Your task to perform on an android device: Go to Google Image 0: 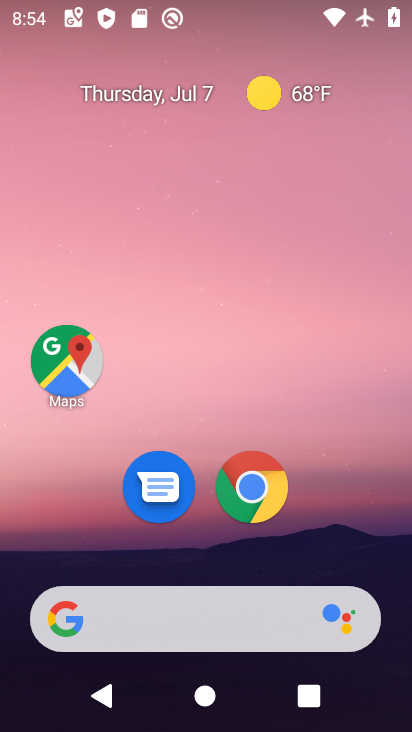
Step 0: drag from (213, 590) to (168, 3)
Your task to perform on an android device: Go to Google Image 1: 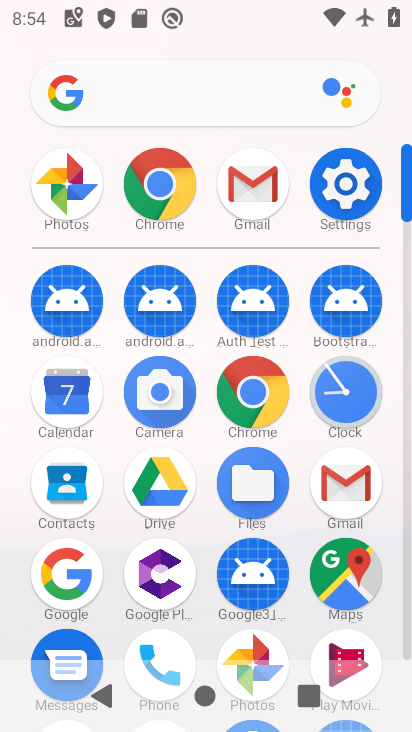
Step 1: click (72, 572)
Your task to perform on an android device: Go to Google Image 2: 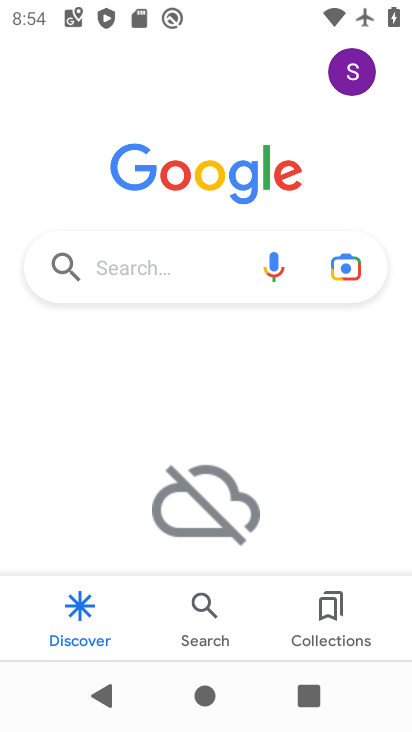
Step 2: task complete